Your task to perform on an android device: open app "Adobe Express: Graphic Design" Image 0: 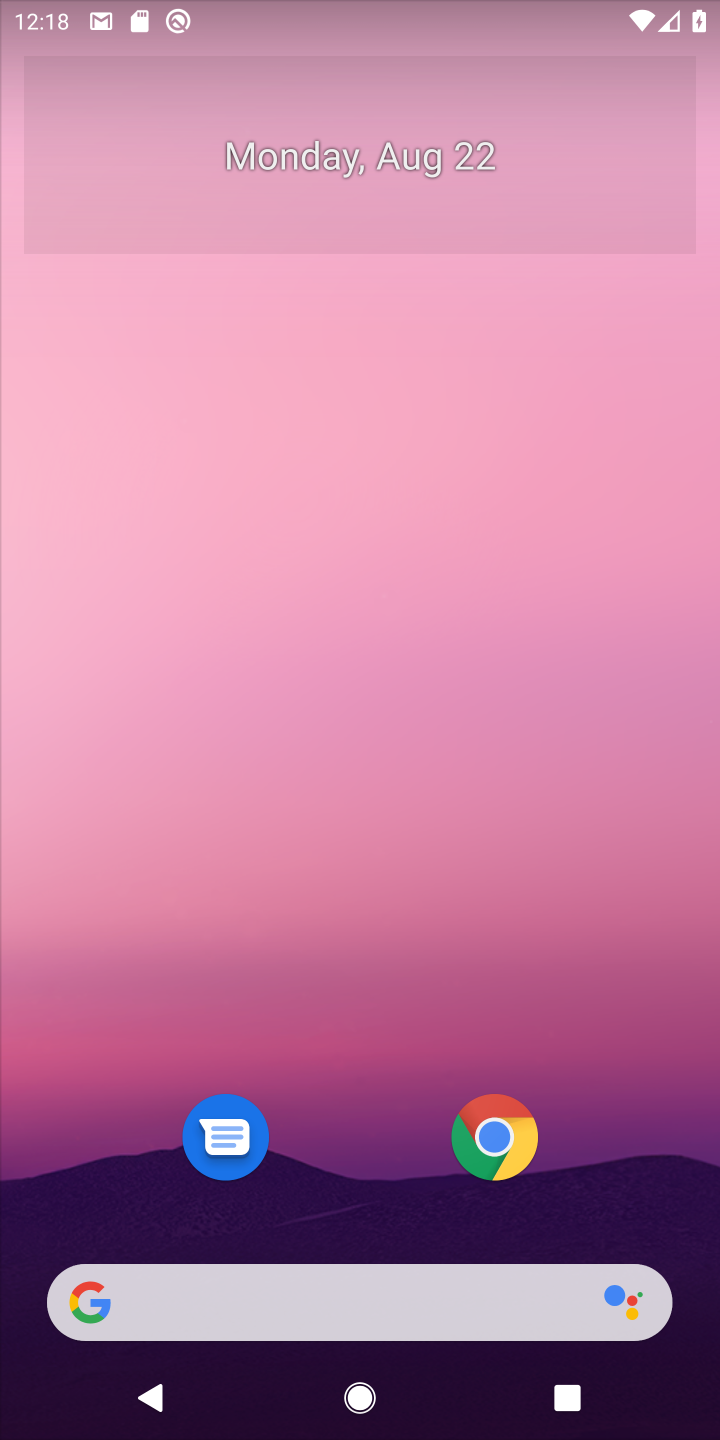
Step 0: drag from (673, 1218) to (595, 109)
Your task to perform on an android device: open app "Adobe Express: Graphic Design" Image 1: 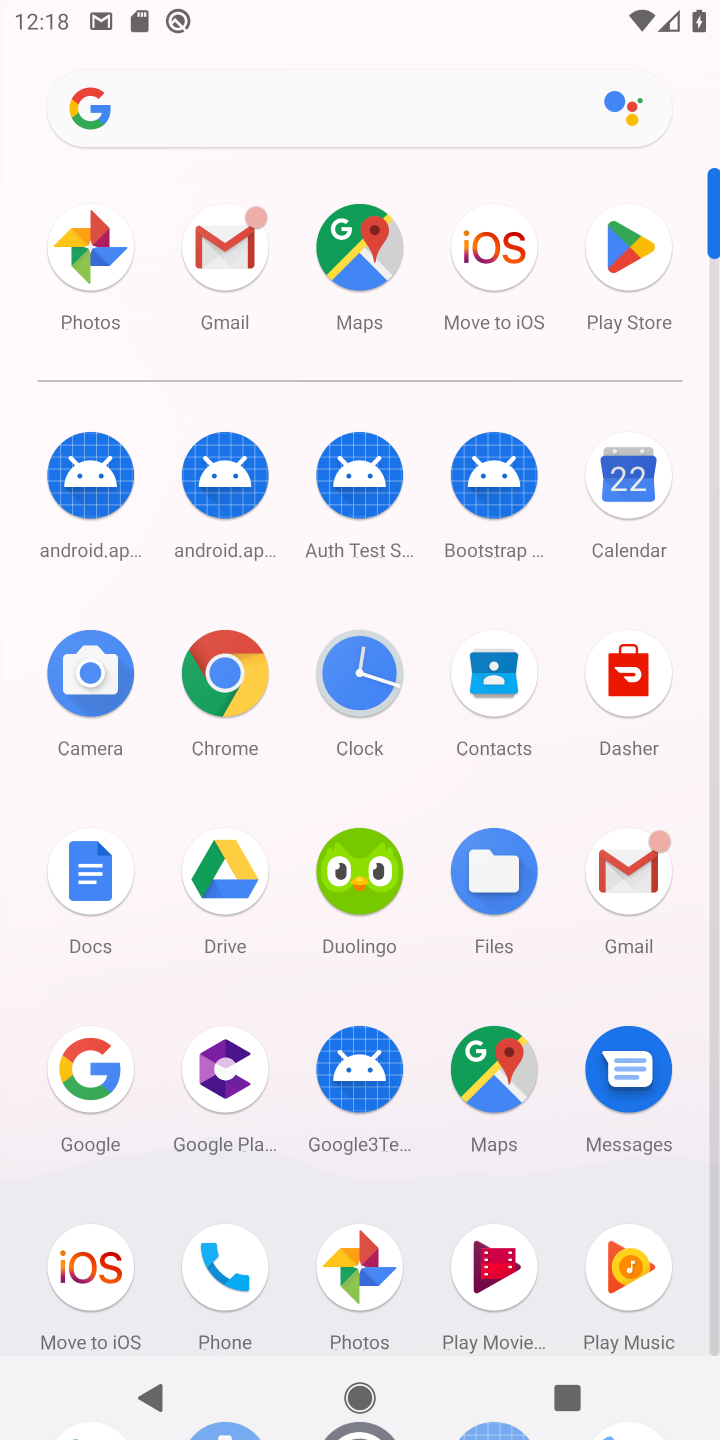
Step 1: drag from (422, 1215) to (423, 326)
Your task to perform on an android device: open app "Adobe Express: Graphic Design" Image 2: 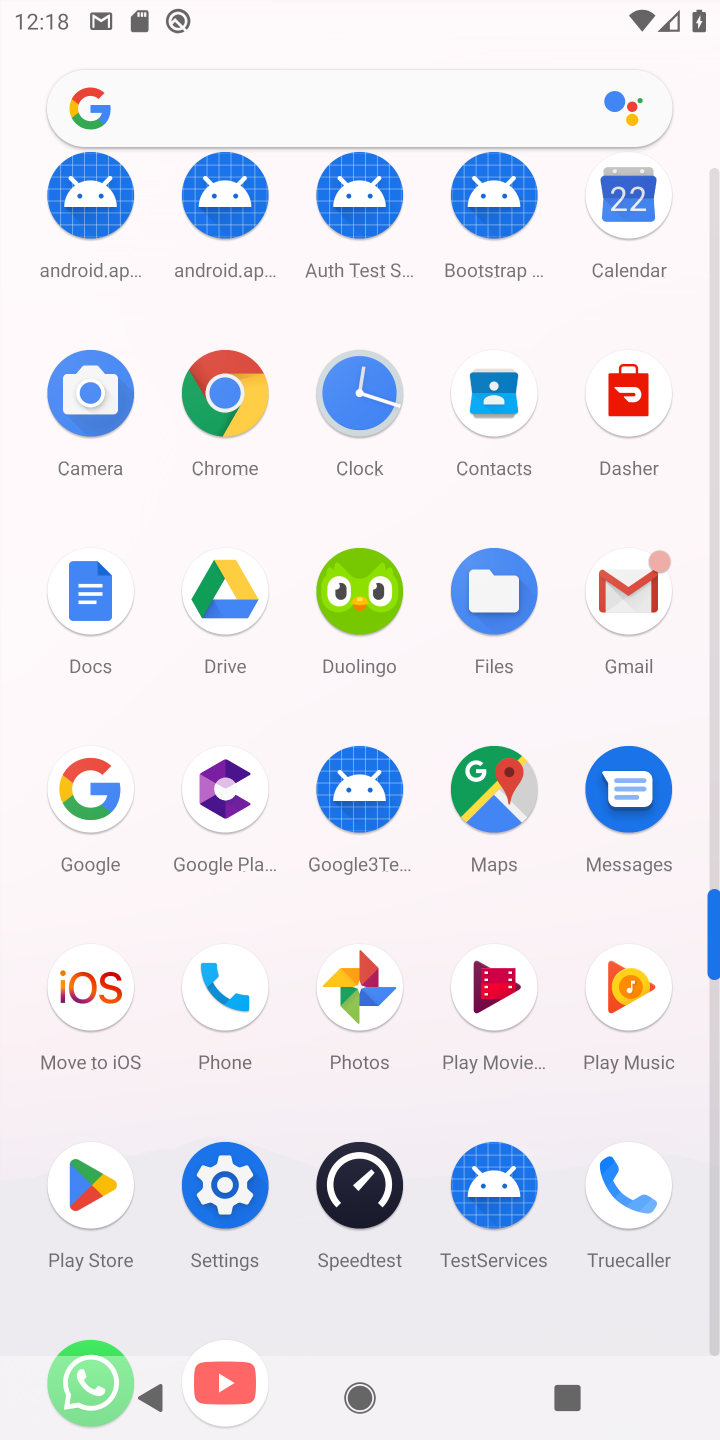
Step 2: click (96, 1187)
Your task to perform on an android device: open app "Adobe Express: Graphic Design" Image 3: 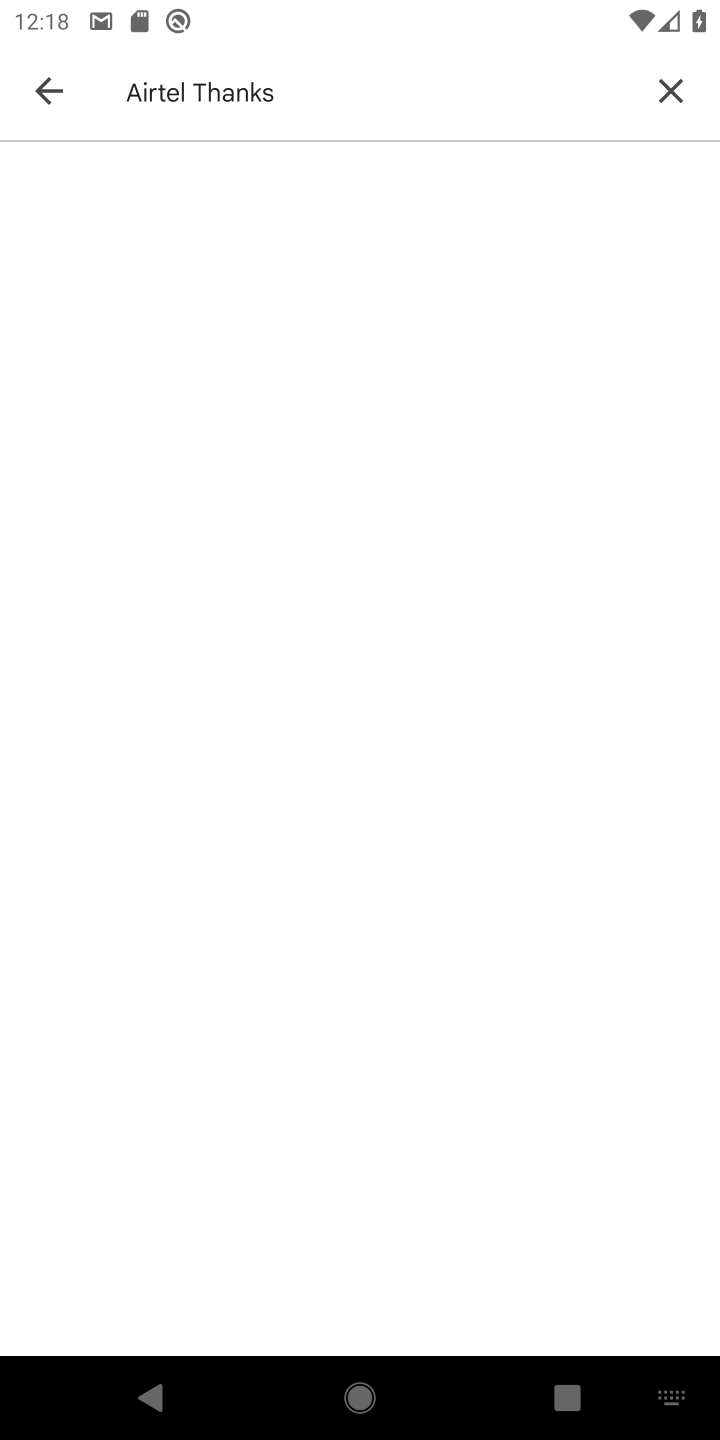
Step 3: click (670, 82)
Your task to perform on an android device: open app "Adobe Express: Graphic Design" Image 4: 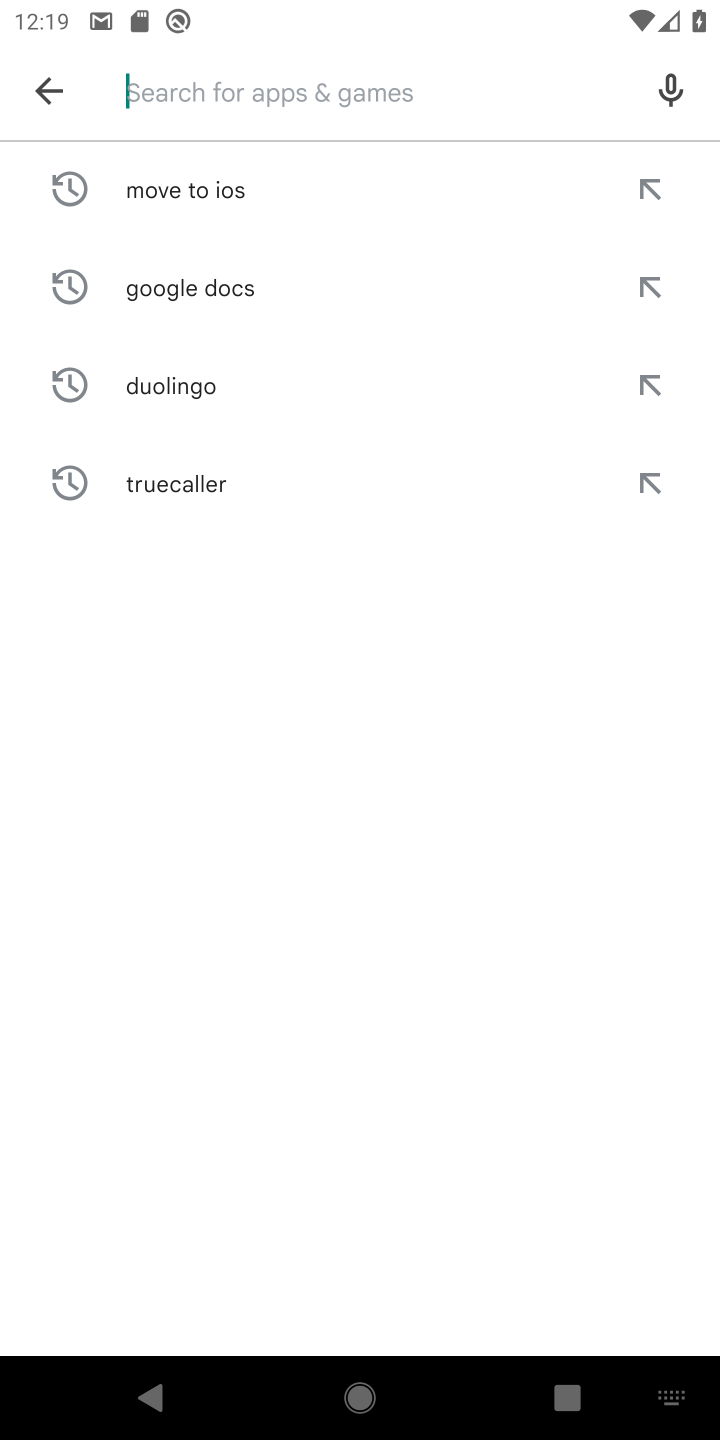
Step 4: type "Adobe Express"
Your task to perform on an android device: open app "Adobe Express: Graphic Design" Image 5: 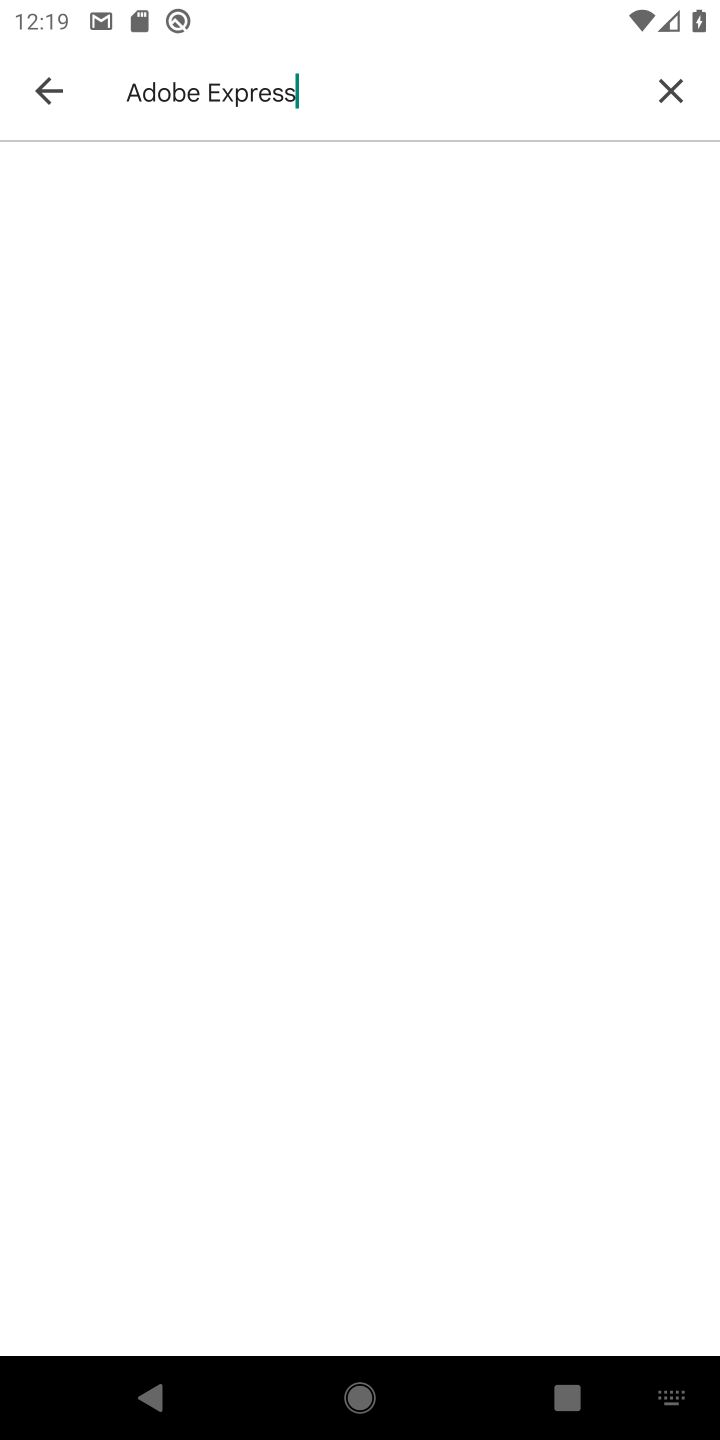
Step 5: task complete